Your task to perform on an android device: turn off picture-in-picture Image 0: 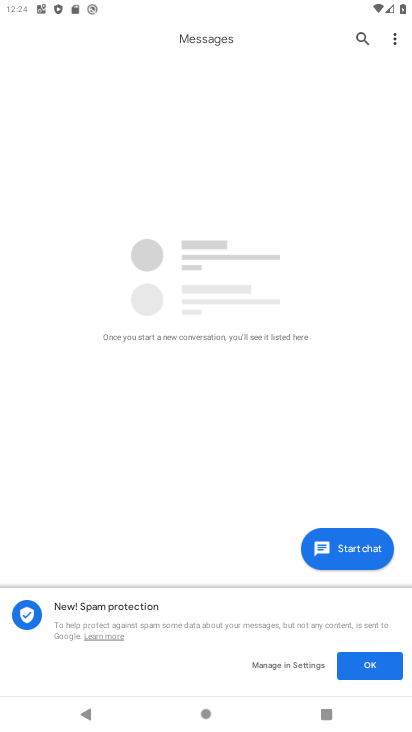
Step 0: press home button
Your task to perform on an android device: turn off picture-in-picture Image 1: 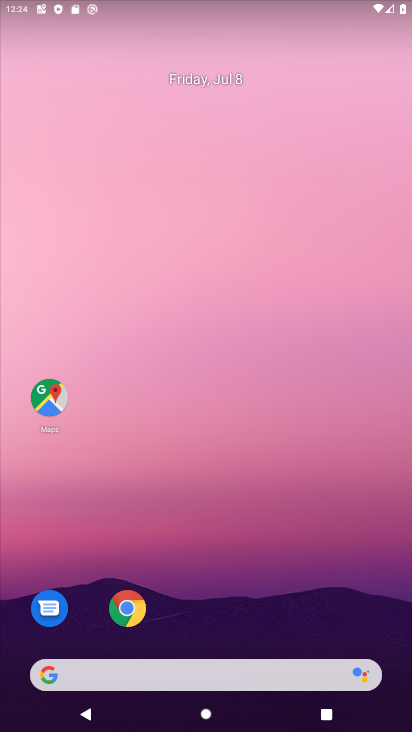
Step 1: drag from (104, 591) to (321, 34)
Your task to perform on an android device: turn off picture-in-picture Image 2: 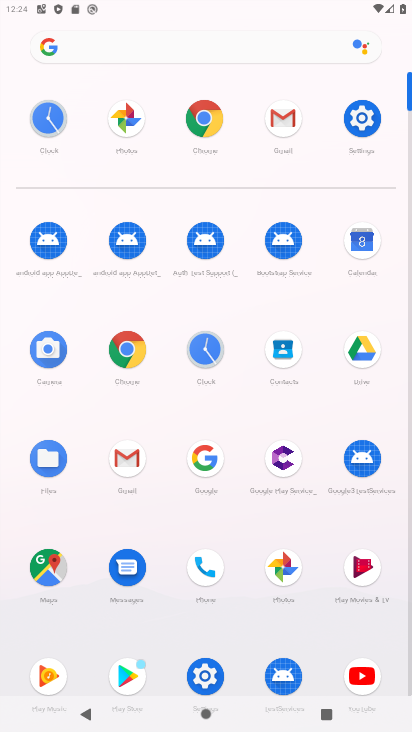
Step 2: click (207, 667)
Your task to perform on an android device: turn off picture-in-picture Image 3: 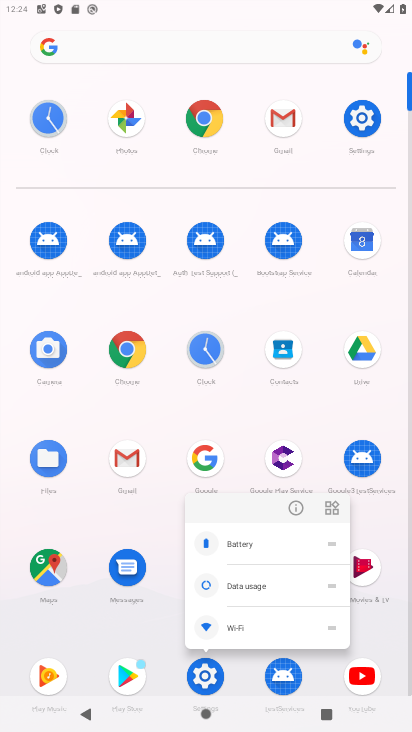
Step 3: click (205, 688)
Your task to perform on an android device: turn off picture-in-picture Image 4: 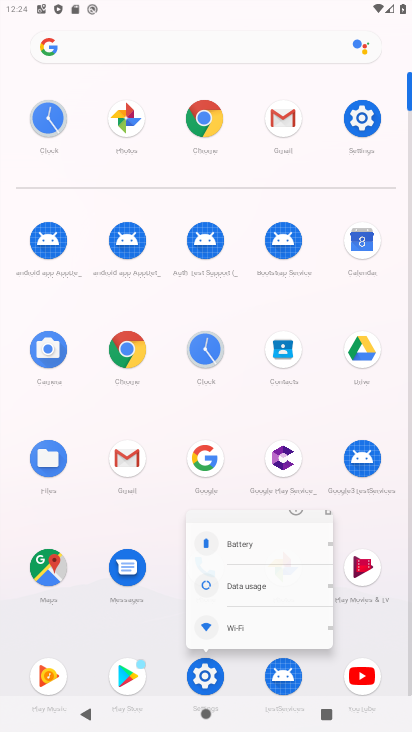
Step 4: click (205, 688)
Your task to perform on an android device: turn off picture-in-picture Image 5: 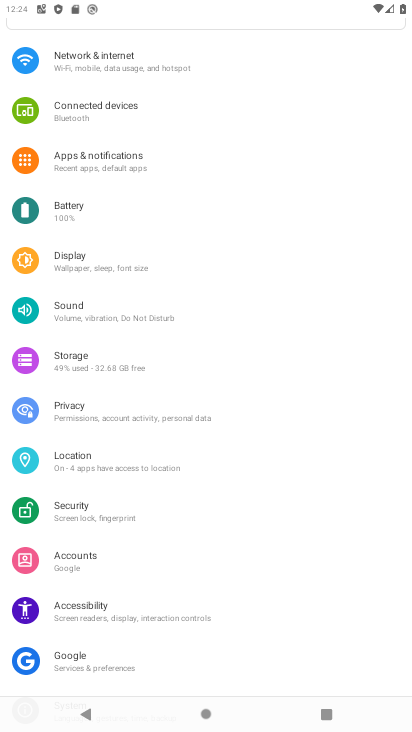
Step 5: task complete